Your task to perform on an android device: open app "Spotify" (install if not already installed) Image 0: 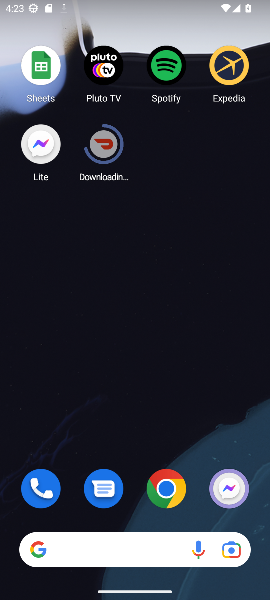
Step 0: click (155, 70)
Your task to perform on an android device: open app "Spotify" (install if not already installed) Image 1: 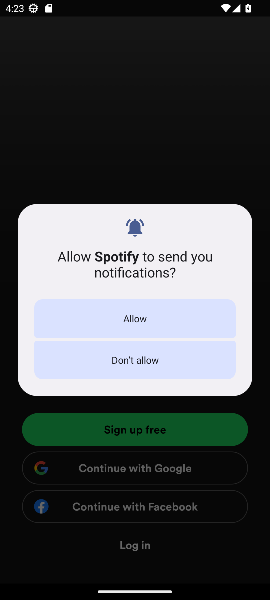
Step 1: click (93, 322)
Your task to perform on an android device: open app "Spotify" (install if not already installed) Image 2: 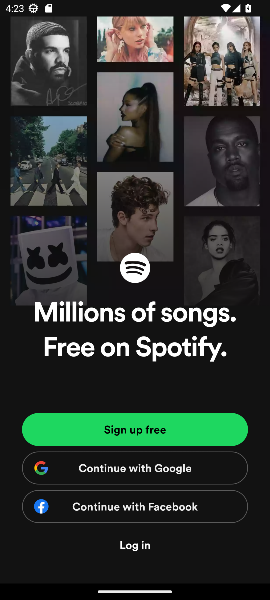
Step 2: task complete